Your task to perform on an android device: turn pop-ups on in chrome Image 0: 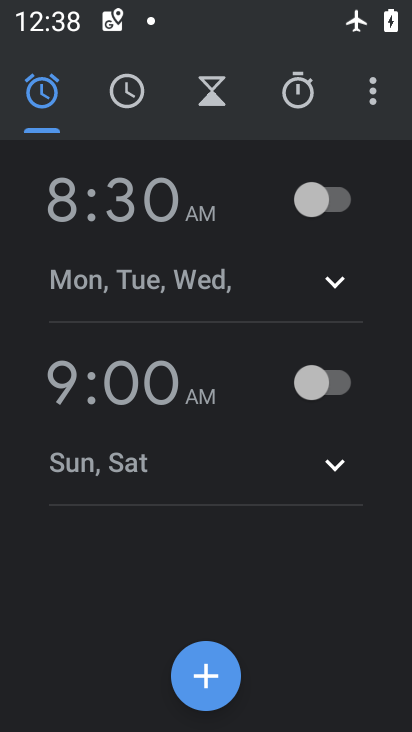
Step 0: drag from (199, 4) to (135, 547)
Your task to perform on an android device: turn pop-ups on in chrome Image 1: 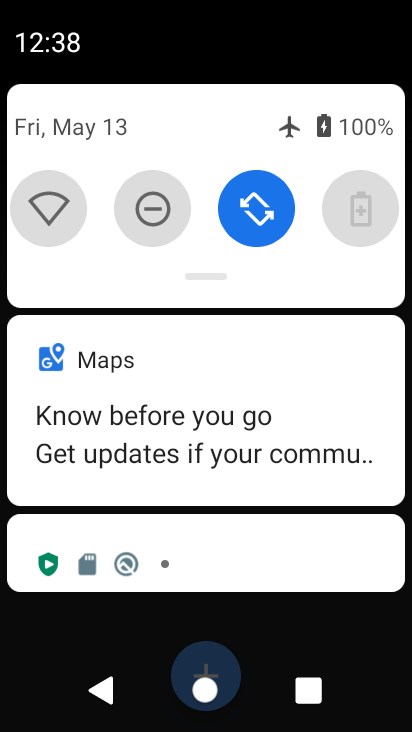
Step 1: drag from (143, 225) to (206, 368)
Your task to perform on an android device: turn pop-ups on in chrome Image 2: 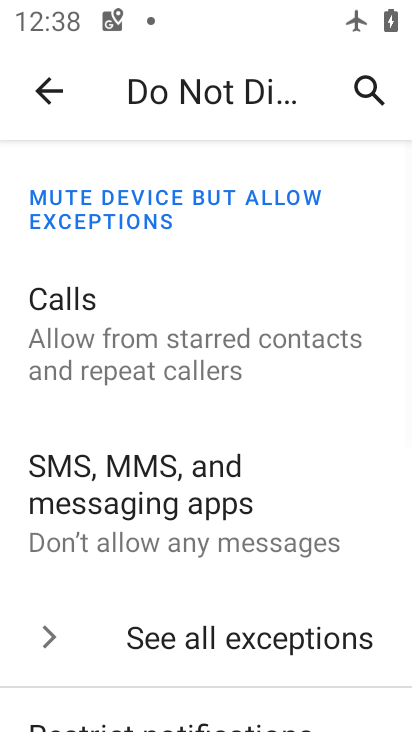
Step 2: press home button
Your task to perform on an android device: turn pop-ups on in chrome Image 3: 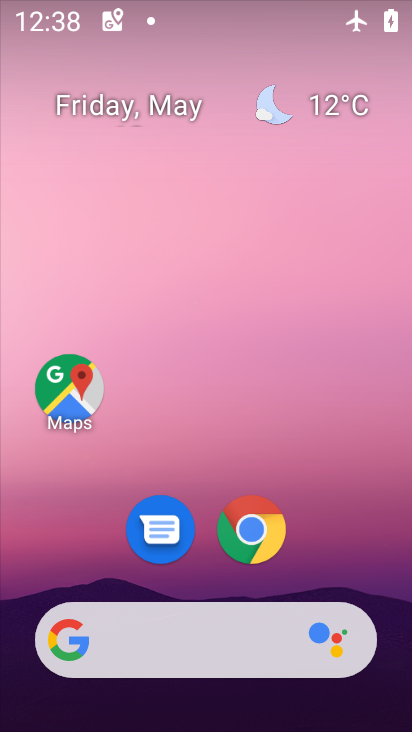
Step 3: drag from (333, 561) to (355, 280)
Your task to perform on an android device: turn pop-ups on in chrome Image 4: 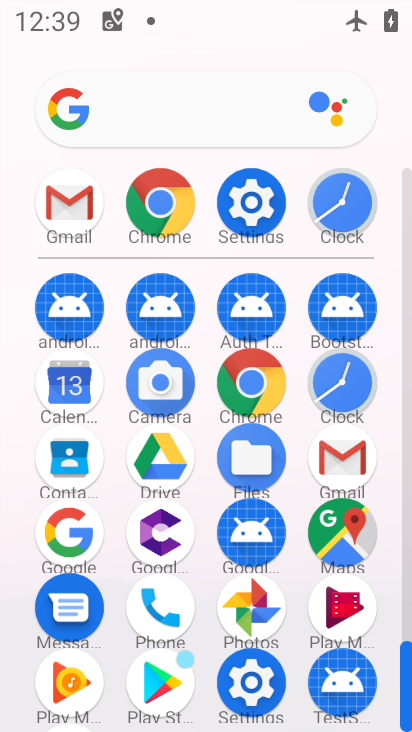
Step 4: click (244, 397)
Your task to perform on an android device: turn pop-ups on in chrome Image 5: 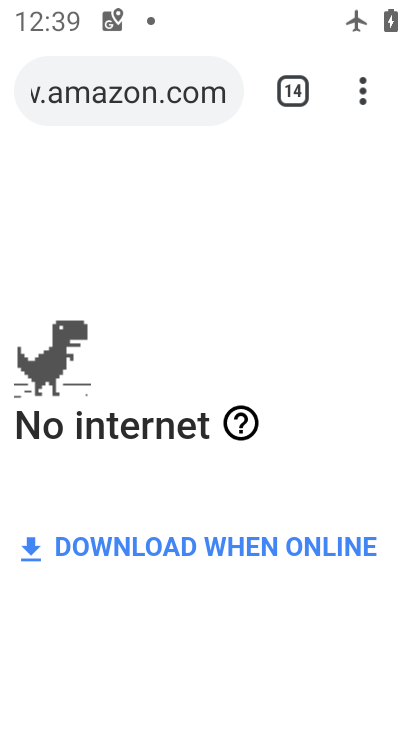
Step 5: click (349, 84)
Your task to perform on an android device: turn pop-ups on in chrome Image 6: 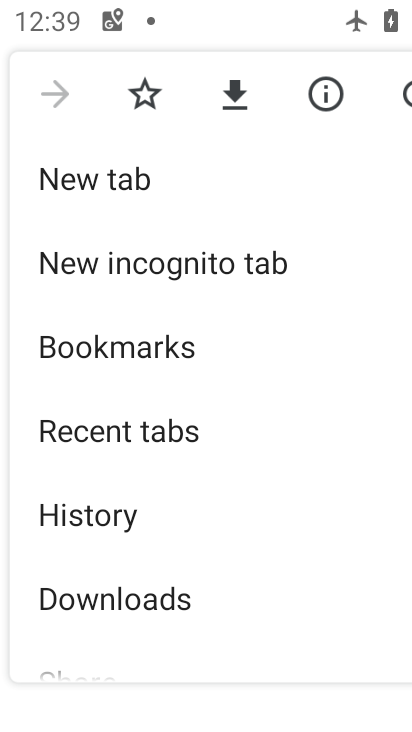
Step 6: drag from (181, 594) to (244, 170)
Your task to perform on an android device: turn pop-ups on in chrome Image 7: 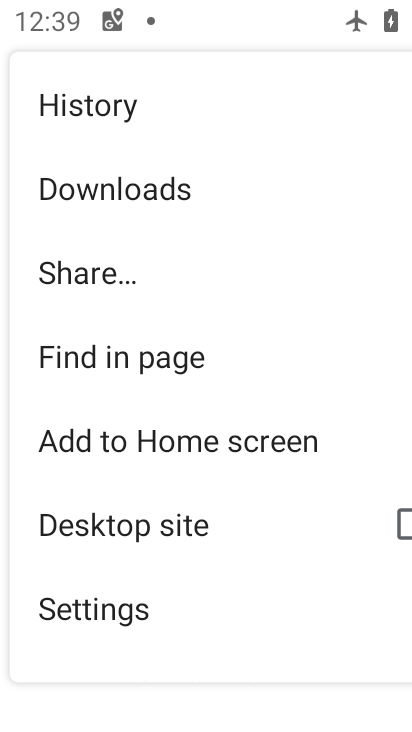
Step 7: click (176, 614)
Your task to perform on an android device: turn pop-ups on in chrome Image 8: 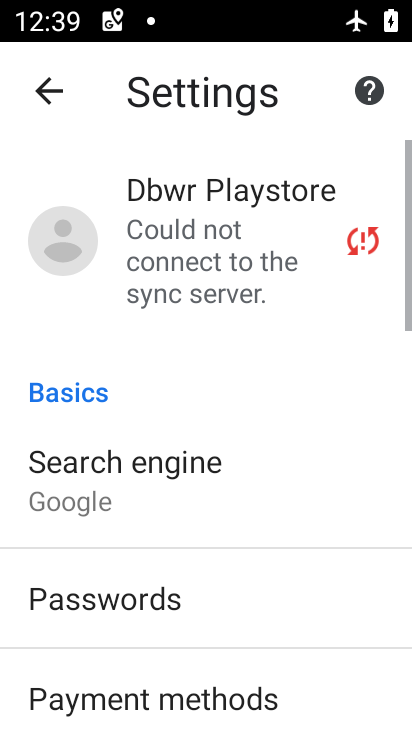
Step 8: drag from (206, 584) to (241, 232)
Your task to perform on an android device: turn pop-ups on in chrome Image 9: 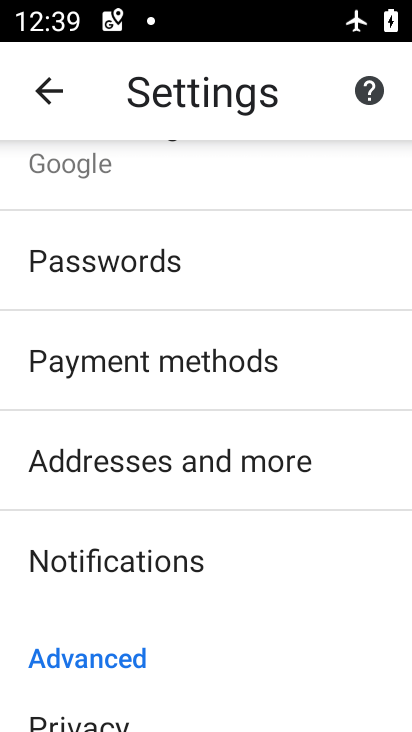
Step 9: drag from (219, 634) to (240, 344)
Your task to perform on an android device: turn pop-ups on in chrome Image 10: 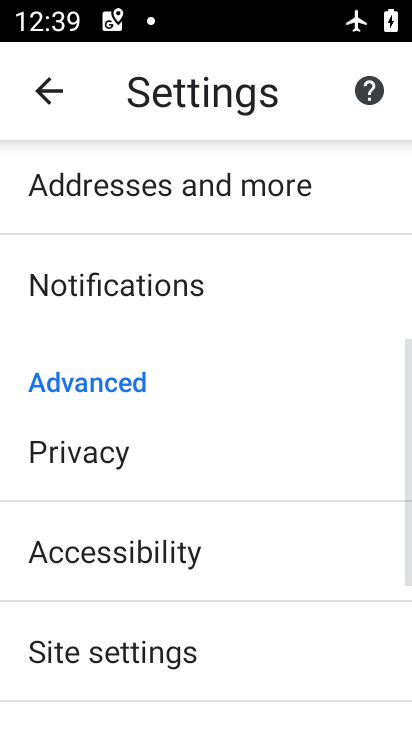
Step 10: drag from (179, 648) to (233, 205)
Your task to perform on an android device: turn pop-ups on in chrome Image 11: 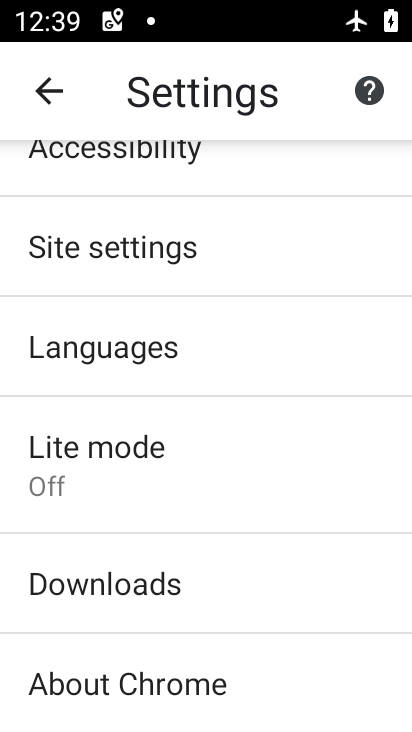
Step 11: drag from (137, 595) to (265, 245)
Your task to perform on an android device: turn pop-ups on in chrome Image 12: 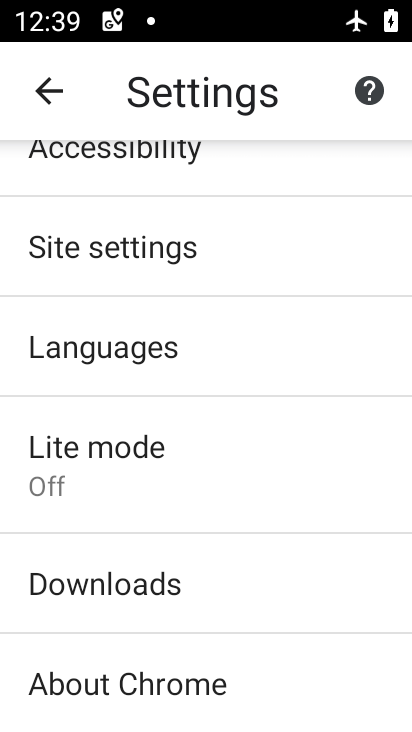
Step 12: click (162, 252)
Your task to perform on an android device: turn pop-ups on in chrome Image 13: 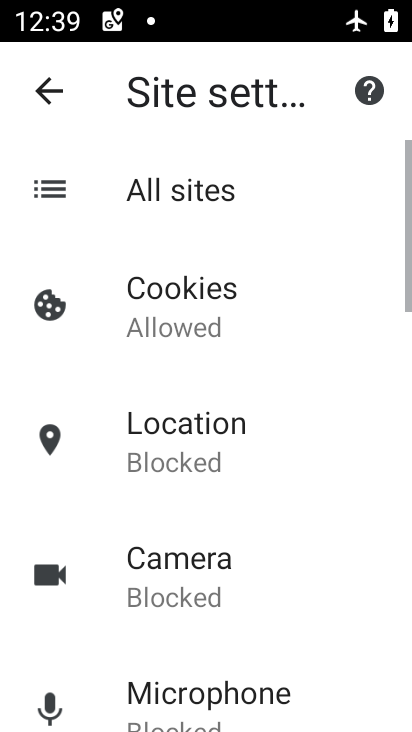
Step 13: drag from (272, 637) to (305, 256)
Your task to perform on an android device: turn pop-ups on in chrome Image 14: 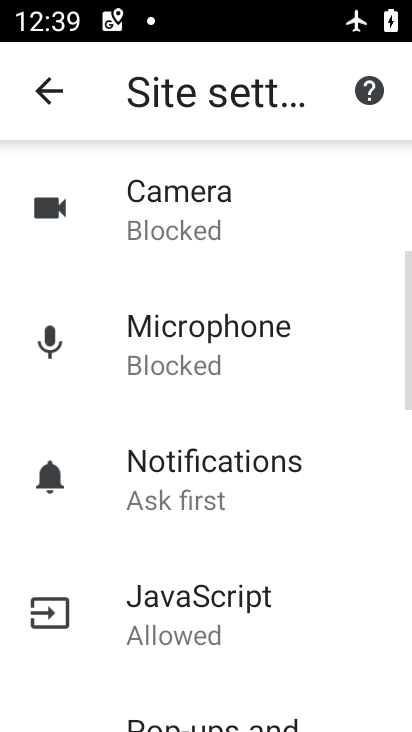
Step 14: drag from (212, 605) to (293, 223)
Your task to perform on an android device: turn pop-ups on in chrome Image 15: 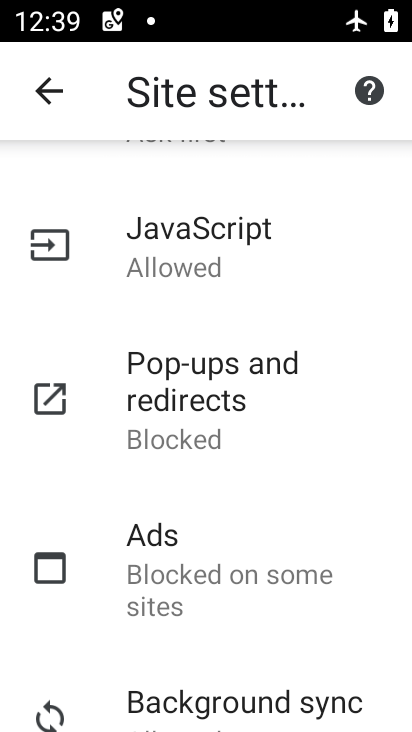
Step 15: click (176, 385)
Your task to perform on an android device: turn pop-ups on in chrome Image 16: 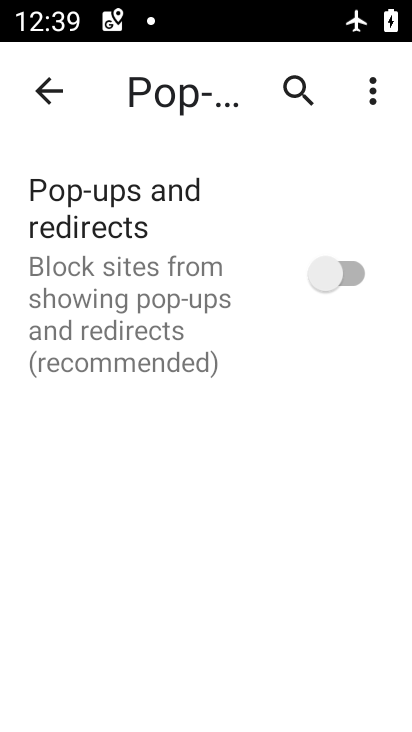
Step 16: click (336, 264)
Your task to perform on an android device: turn pop-ups on in chrome Image 17: 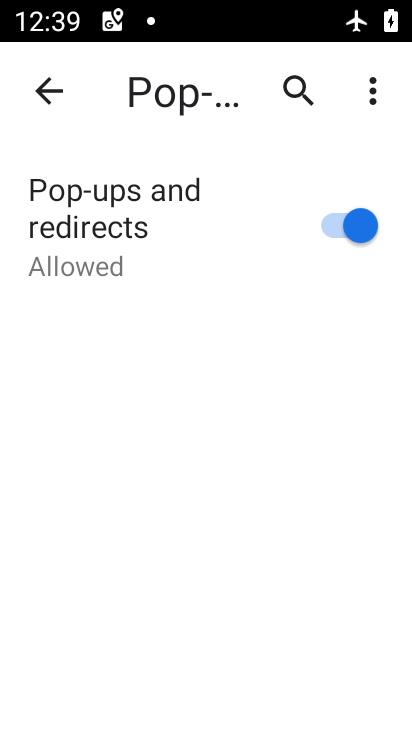
Step 17: task complete